Your task to perform on an android device: Search for 3d printer on AliExpress Image 0: 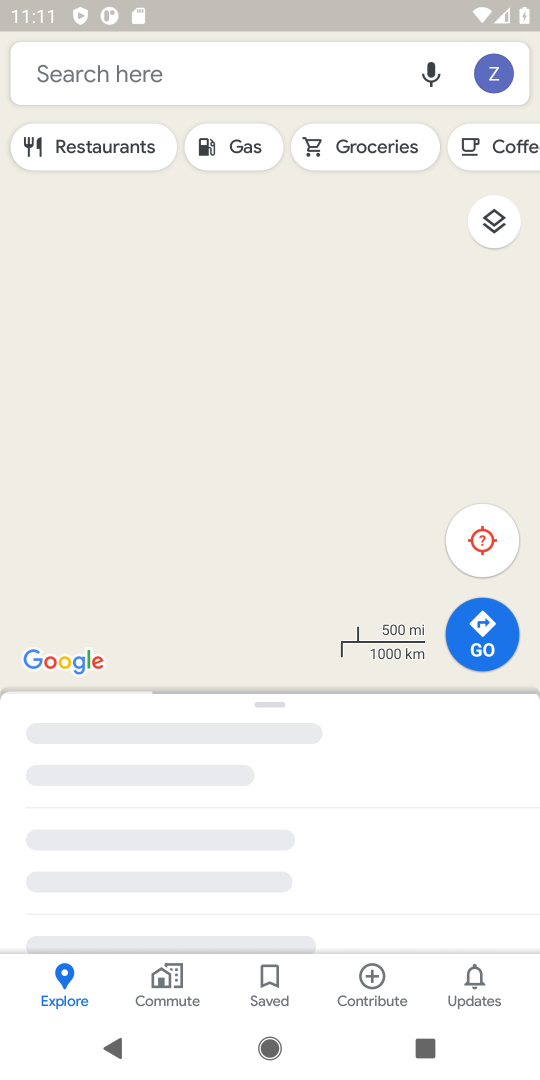
Step 0: press home button
Your task to perform on an android device: Search for 3d printer on AliExpress Image 1: 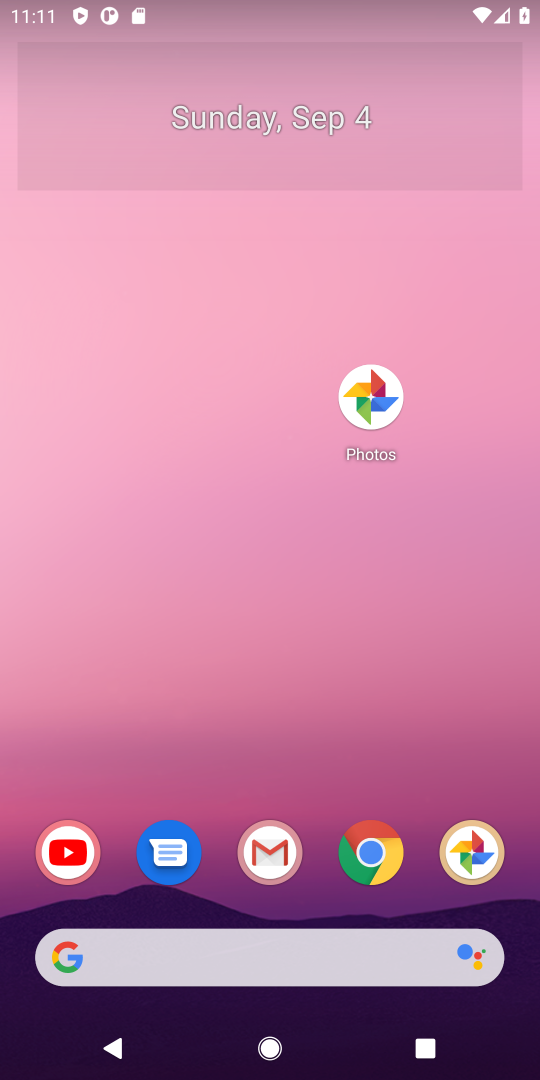
Step 1: drag from (208, 408) to (121, 7)
Your task to perform on an android device: Search for 3d printer on AliExpress Image 2: 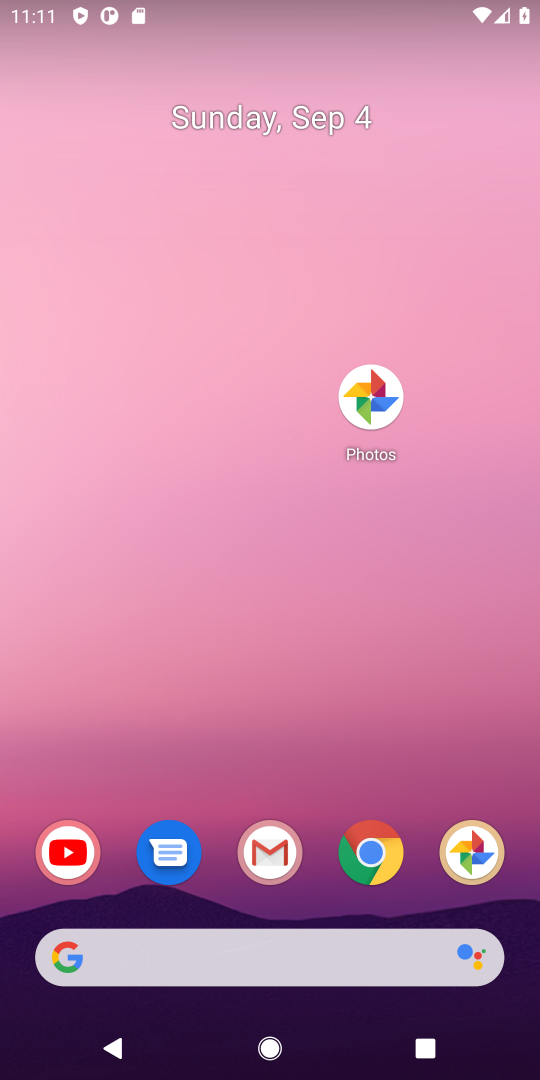
Step 2: drag from (422, 888) to (224, 4)
Your task to perform on an android device: Search for 3d printer on AliExpress Image 3: 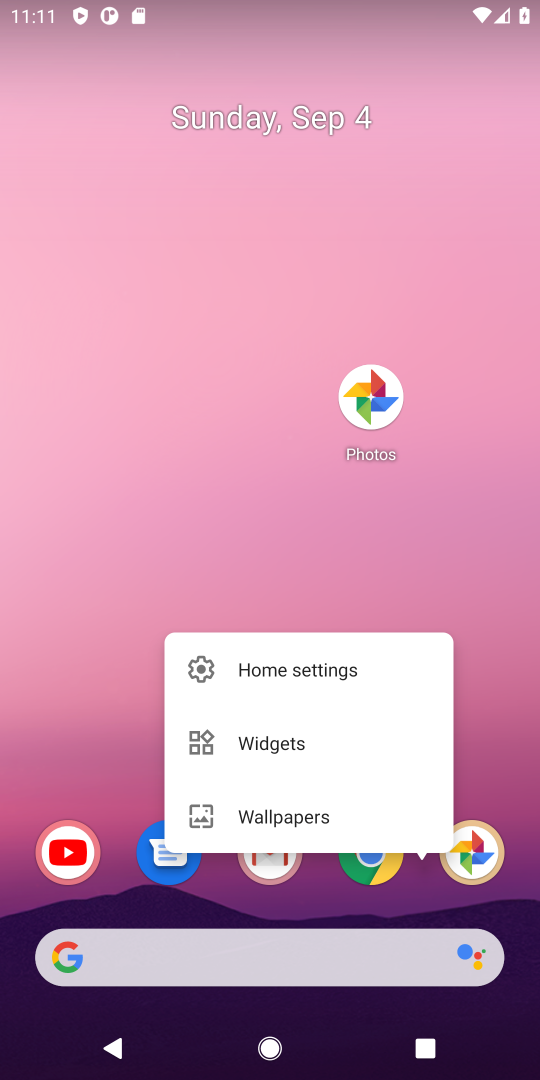
Step 3: click (503, 514)
Your task to perform on an android device: Search for 3d printer on AliExpress Image 4: 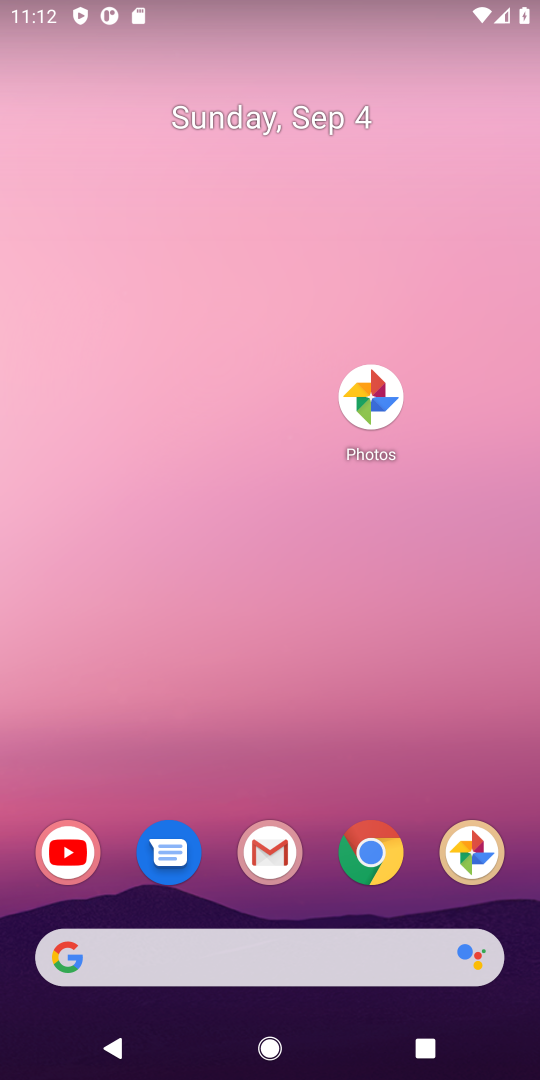
Step 4: drag from (518, 913) to (400, 81)
Your task to perform on an android device: Search for 3d printer on AliExpress Image 5: 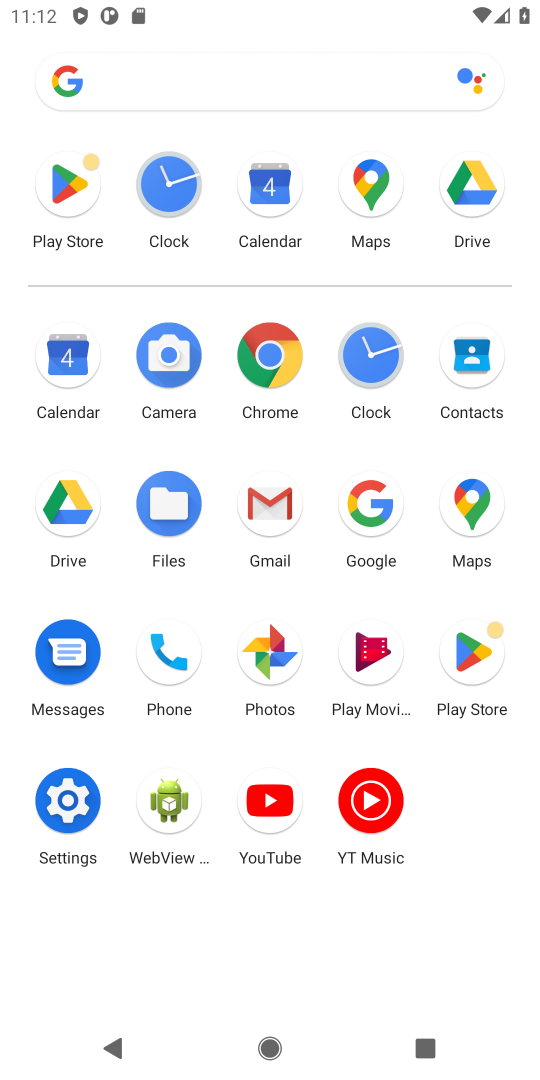
Step 5: click (357, 513)
Your task to perform on an android device: Search for 3d printer on AliExpress Image 6: 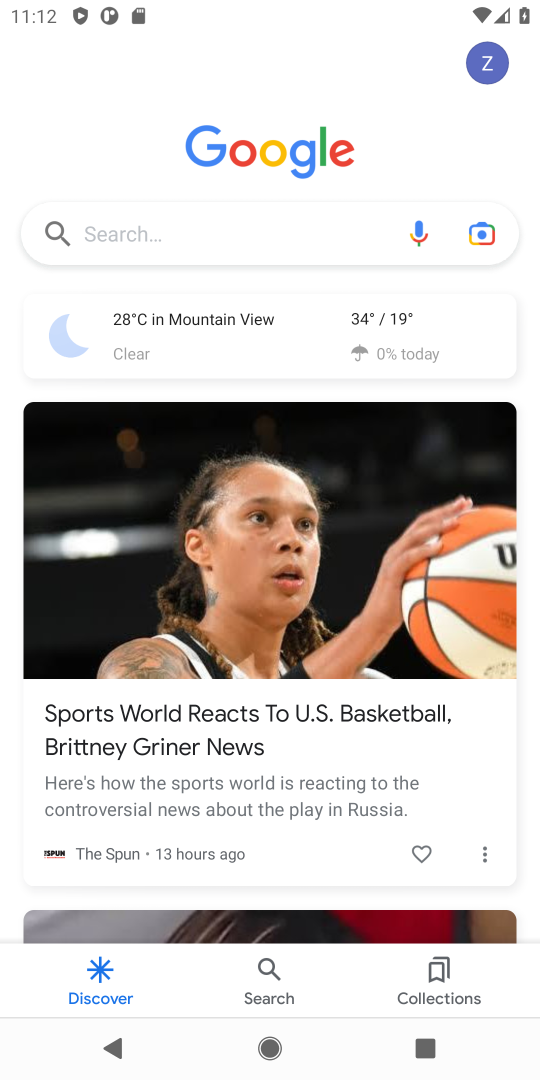
Step 6: click (172, 232)
Your task to perform on an android device: Search for 3d printer on AliExpress Image 7: 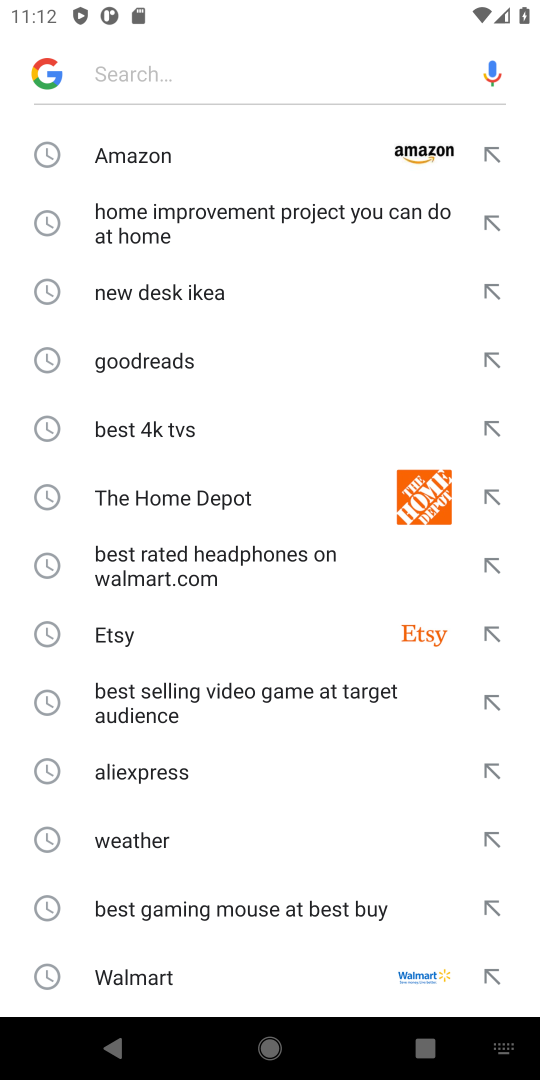
Step 7: click (149, 782)
Your task to perform on an android device: Search for 3d printer on AliExpress Image 8: 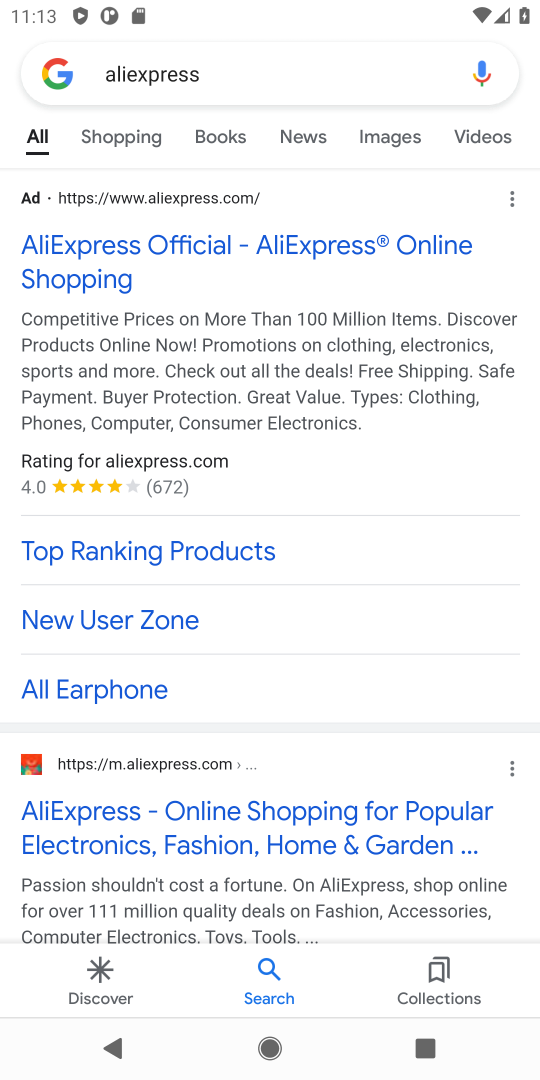
Step 8: click (177, 279)
Your task to perform on an android device: Search for 3d printer on AliExpress Image 9: 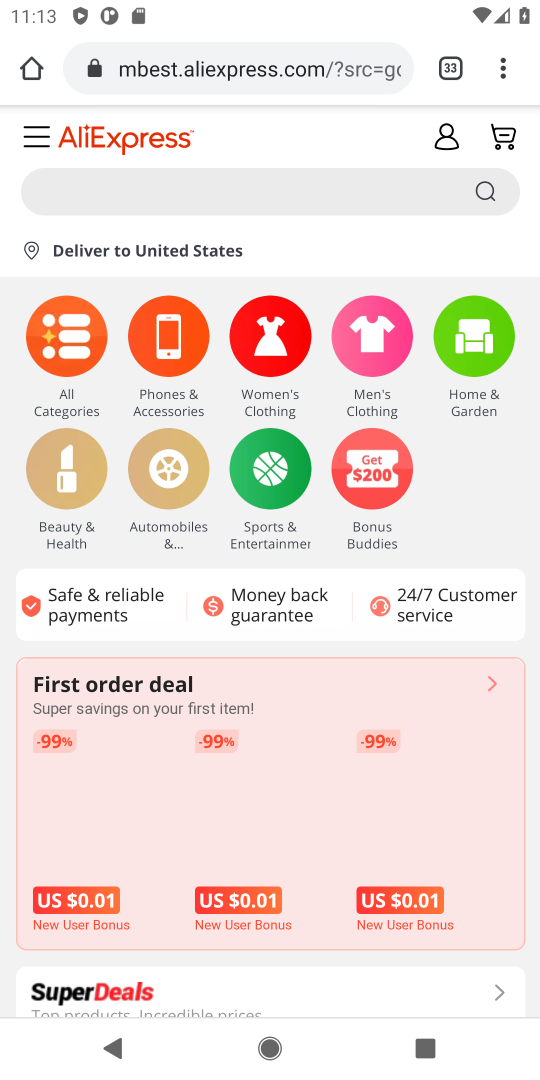
Step 9: click (115, 183)
Your task to perform on an android device: Search for 3d printer on AliExpress Image 10: 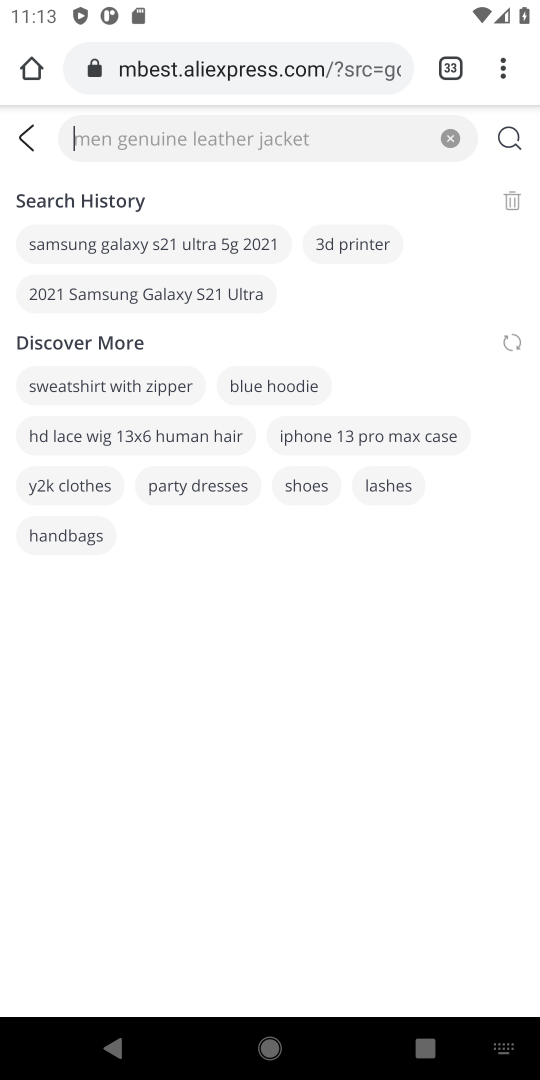
Step 10: type "3d printer"
Your task to perform on an android device: Search for 3d printer on AliExpress Image 11: 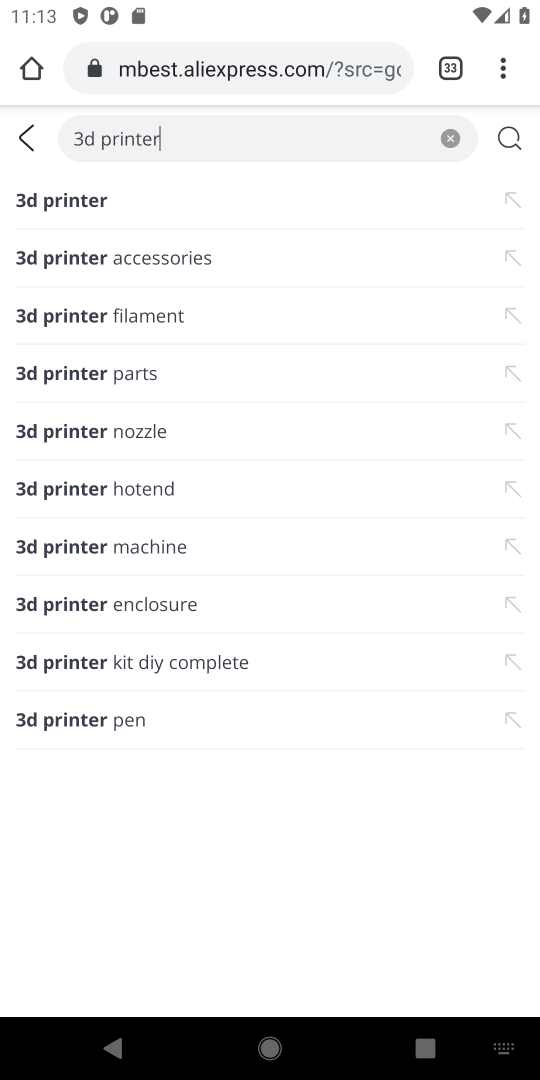
Step 11: click (117, 202)
Your task to perform on an android device: Search for 3d printer on AliExpress Image 12: 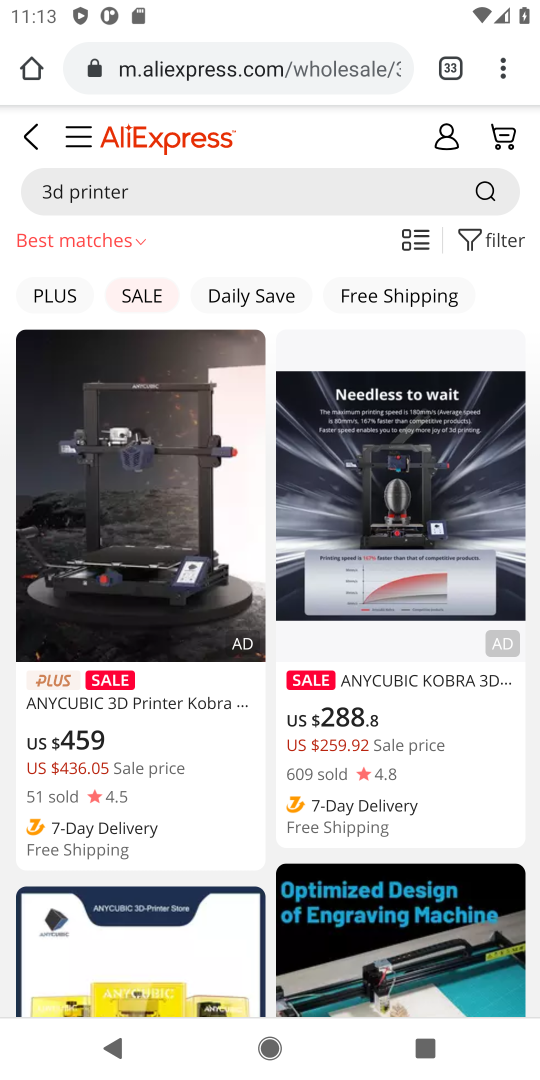
Step 12: task complete